Your task to perform on an android device: change notification settings in the gmail app Image 0: 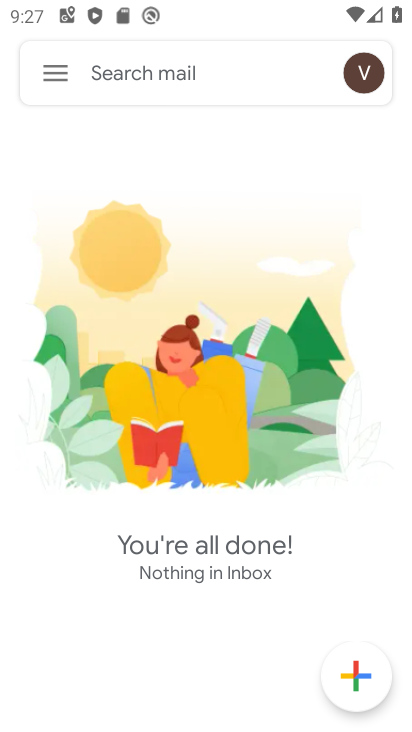
Step 0: press home button
Your task to perform on an android device: change notification settings in the gmail app Image 1: 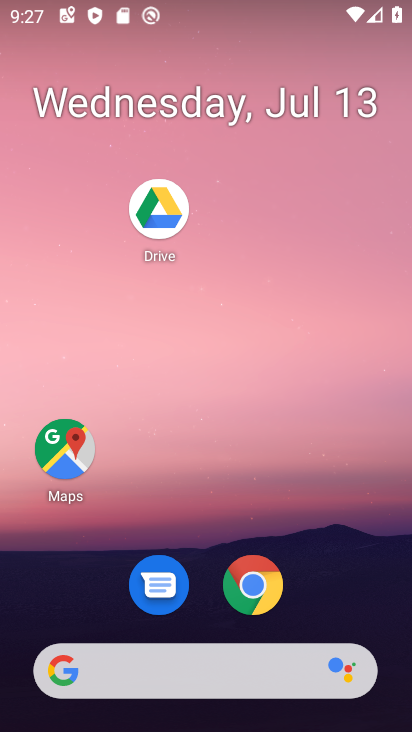
Step 1: drag from (227, 672) to (374, 93)
Your task to perform on an android device: change notification settings in the gmail app Image 2: 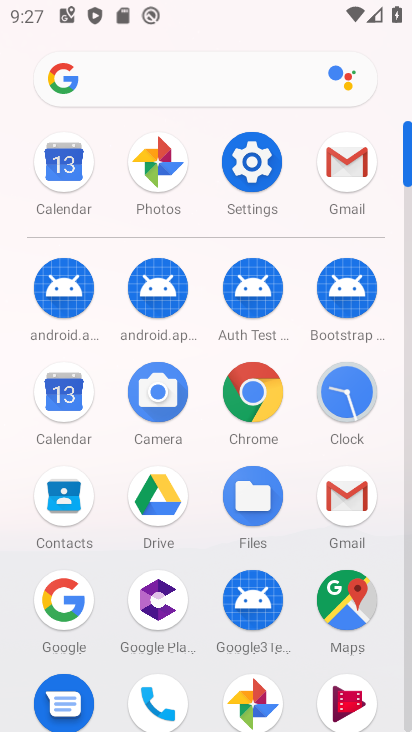
Step 2: click (347, 498)
Your task to perform on an android device: change notification settings in the gmail app Image 3: 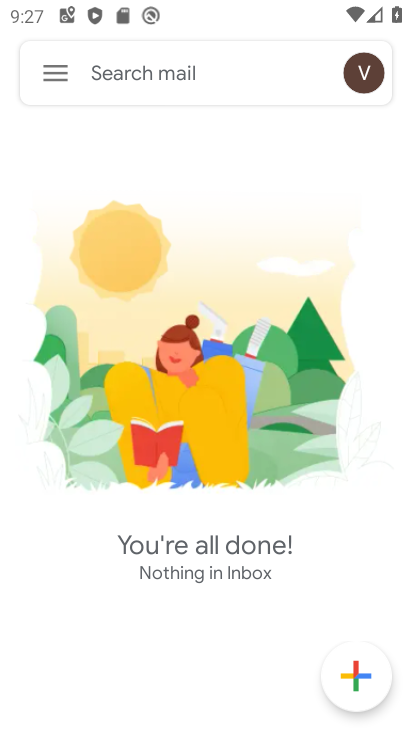
Step 3: click (57, 66)
Your task to perform on an android device: change notification settings in the gmail app Image 4: 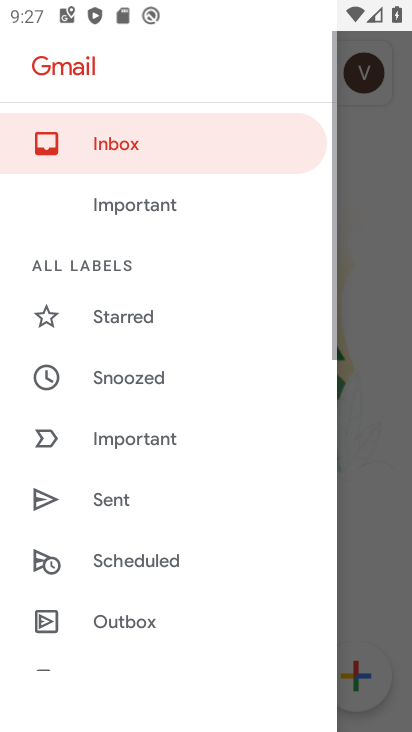
Step 4: drag from (173, 601) to (276, 84)
Your task to perform on an android device: change notification settings in the gmail app Image 5: 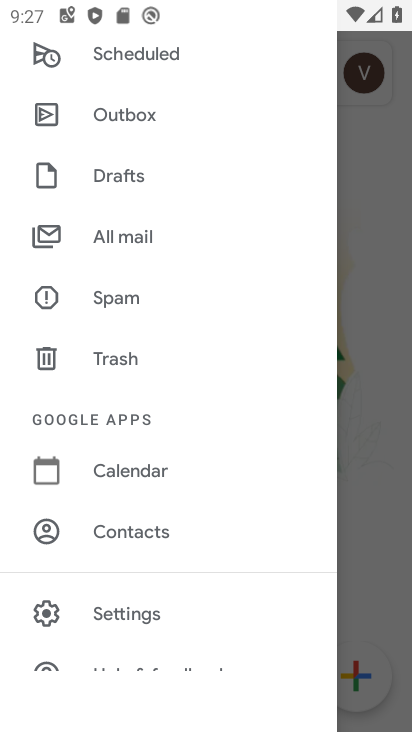
Step 5: click (134, 613)
Your task to perform on an android device: change notification settings in the gmail app Image 6: 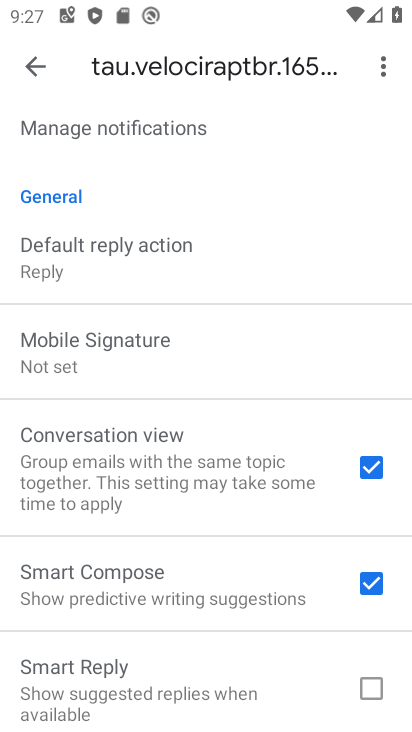
Step 6: drag from (296, 195) to (262, 669)
Your task to perform on an android device: change notification settings in the gmail app Image 7: 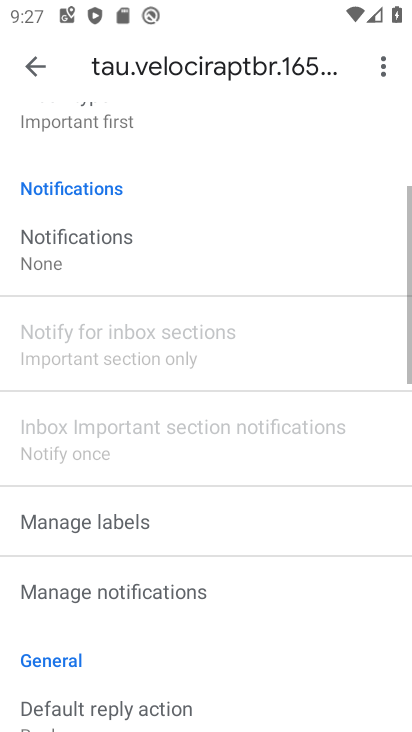
Step 7: click (81, 243)
Your task to perform on an android device: change notification settings in the gmail app Image 8: 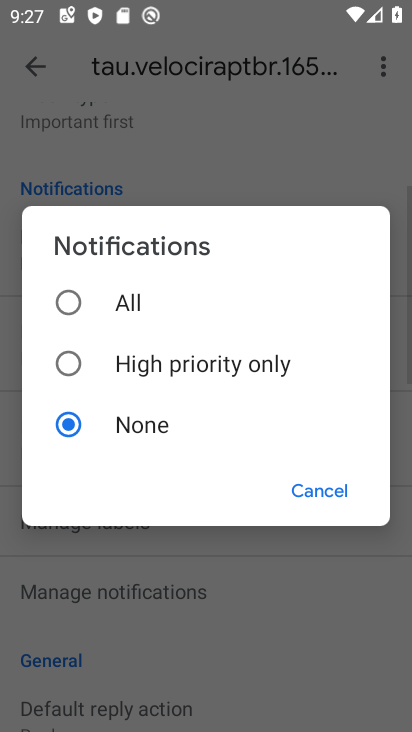
Step 8: click (67, 300)
Your task to perform on an android device: change notification settings in the gmail app Image 9: 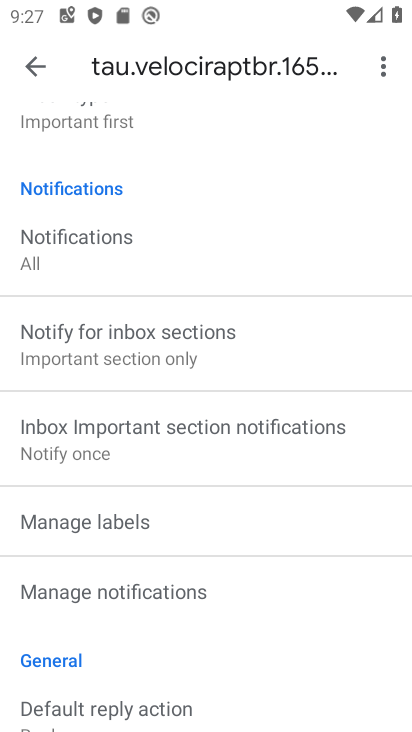
Step 9: task complete